Your task to perform on an android device: Go to settings Image 0: 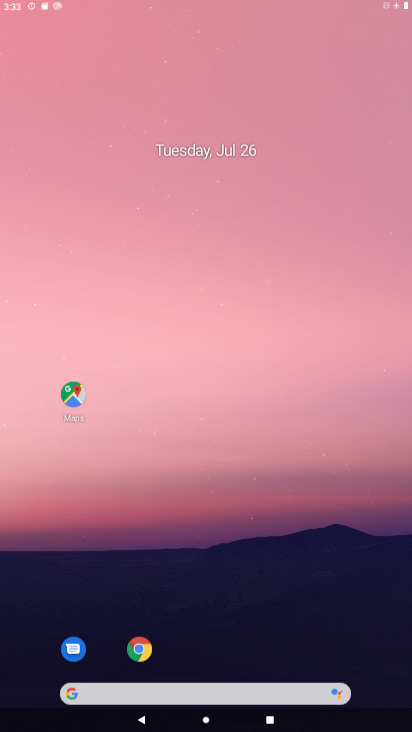
Step 0: drag from (297, 505) to (123, 21)
Your task to perform on an android device: Go to settings Image 1: 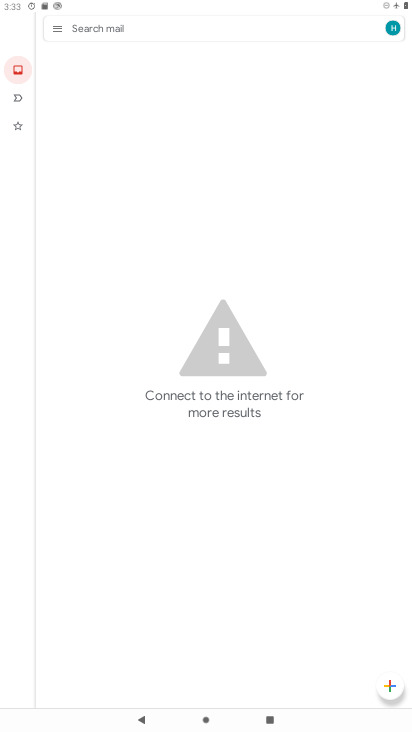
Step 1: press home button
Your task to perform on an android device: Go to settings Image 2: 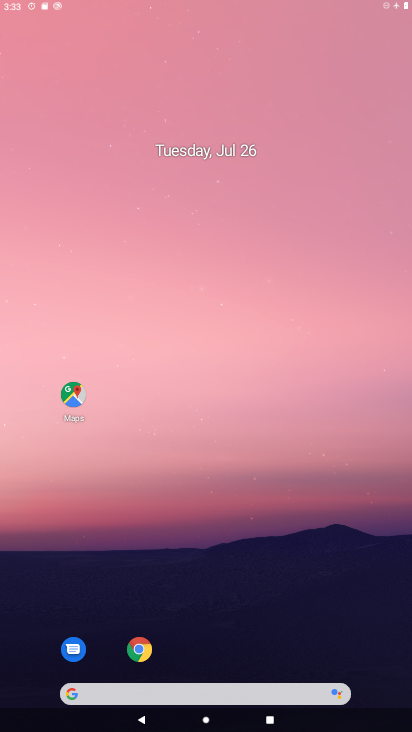
Step 2: drag from (392, 683) to (213, 11)
Your task to perform on an android device: Go to settings Image 3: 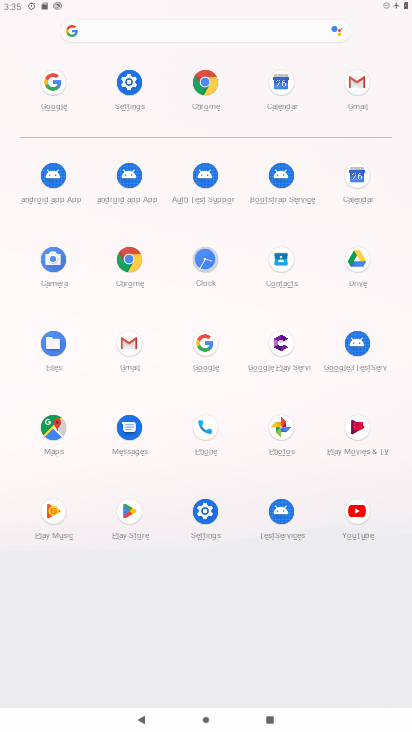
Step 3: click (200, 510)
Your task to perform on an android device: Go to settings Image 4: 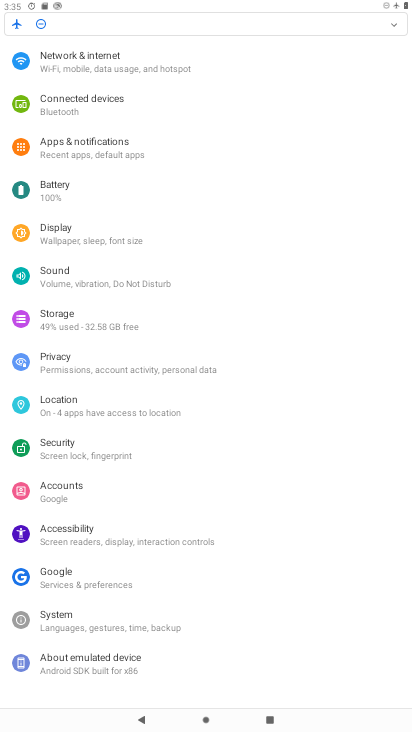
Step 4: task complete